Your task to perform on an android device: choose inbox layout in the gmail app Image 0: 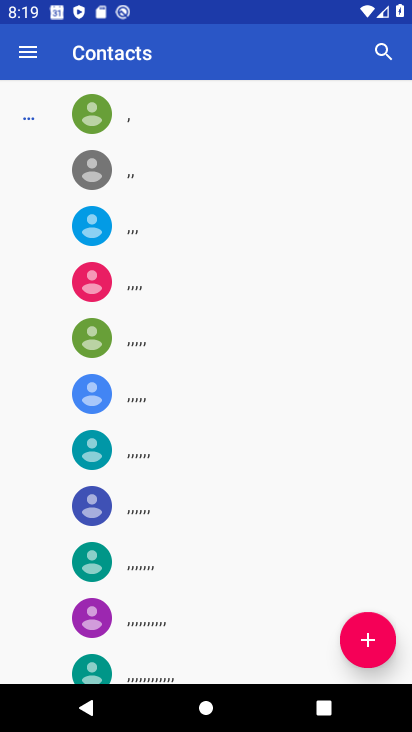
Step 0: drag from (183, 638) to (194, 451)
Your task to perform on an android device: choose inbox layout in the gmail app Image 1: 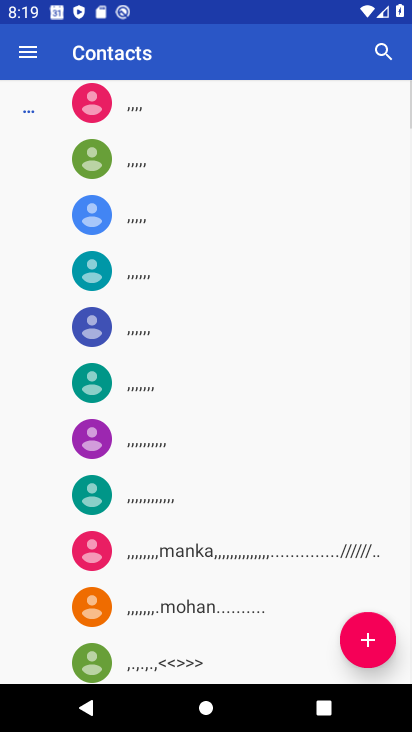
Step 1: press home button
Your task to perform on an android device: choose inbox layout in the gmail app Image 2: 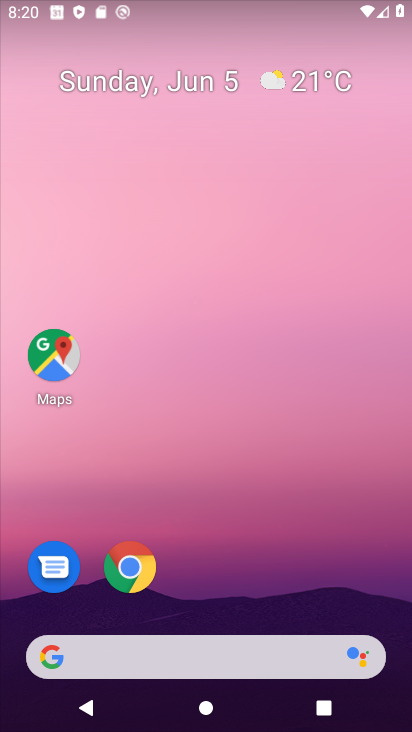
Step 2: drag from (181, 615) to (178, 307)
Your task to perform on an android device: choose inbox layout in the gmail app Image 3: 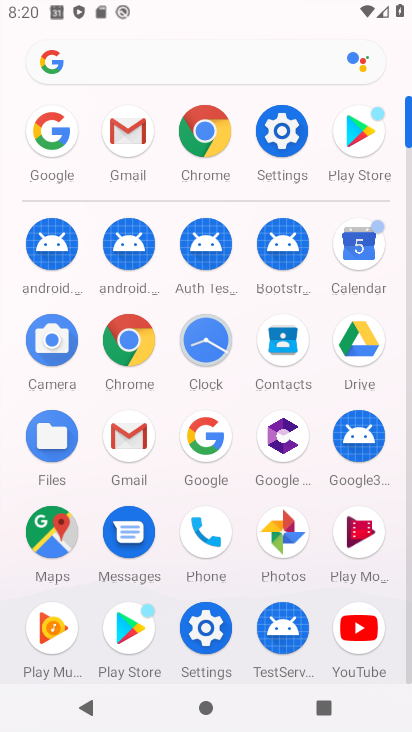
Step 3: click (138, 444)
Your task to perform on an android device: choose inbox layout in the gmail app Image 4: 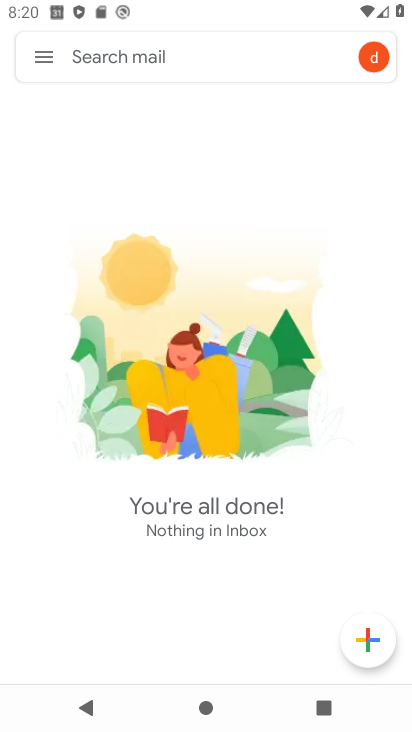
Step 4: click (40, 60)
Your task to perform on an android device: choose inbox layout in the gmail app Image 5: 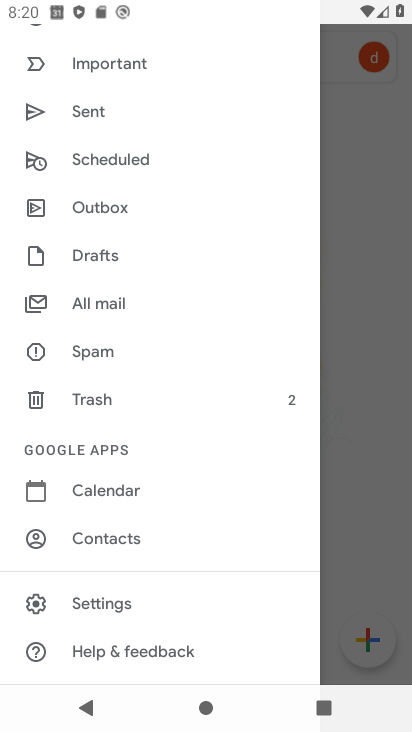
Step 5: click (91, 603)
Your task to perform on an android device: choose inbox layout in the gmail app Image 6: 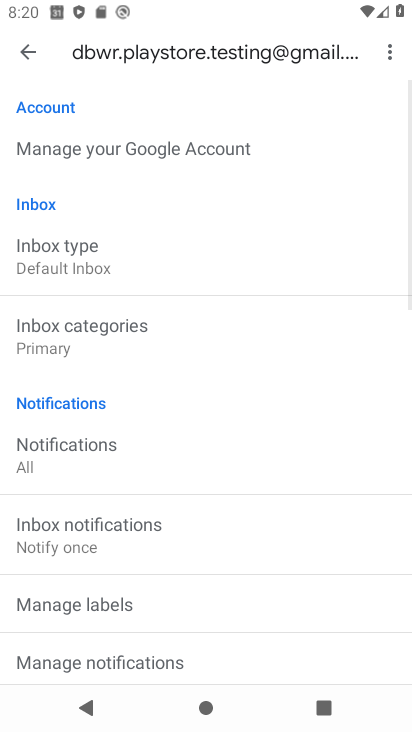
Step 6: click (89, 260)
Your task to perform on an android device: choose inbox layout in the gmail app Image 7: 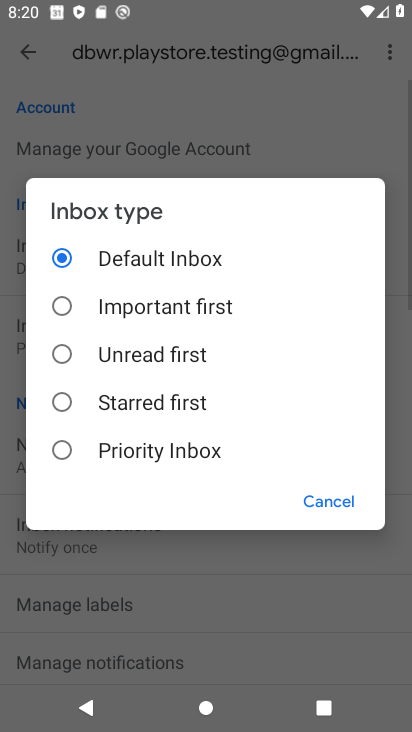
Step 7: click (116, 308)
Your task to perform on an android device: choose inbox layout in the gmail app Image 8: 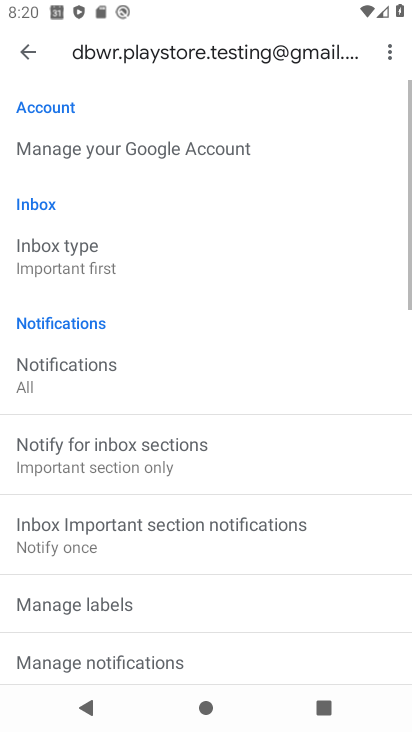
Step 8: task complete